Your task to perform on an android device: Open the phone app and click the voicemail tab. Image 0: 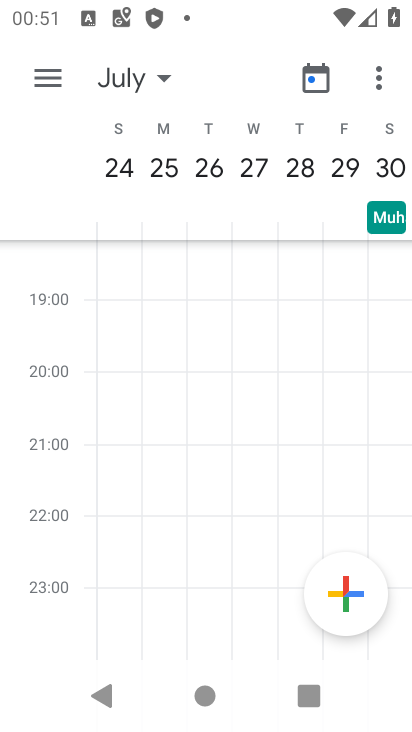
Step 0: press home button
Your task to perform on an android device: Open the phone app and click the voicemail tab. Image 1: 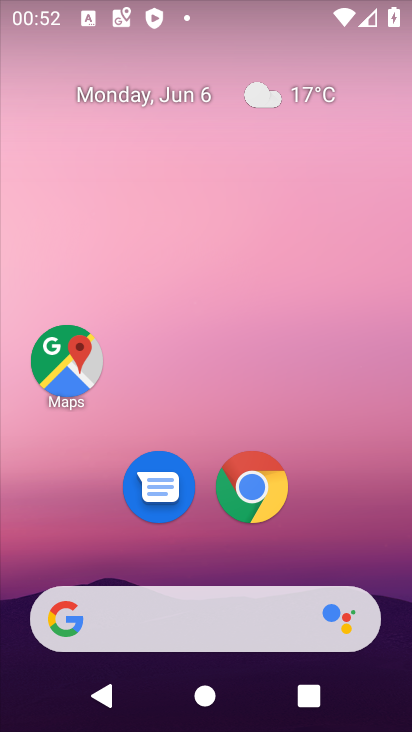
Step 1: drag from (396, 604) to (294, 64)
Your task to perform on an android device: Open the phone app and click the voicemail tab. Image 2: 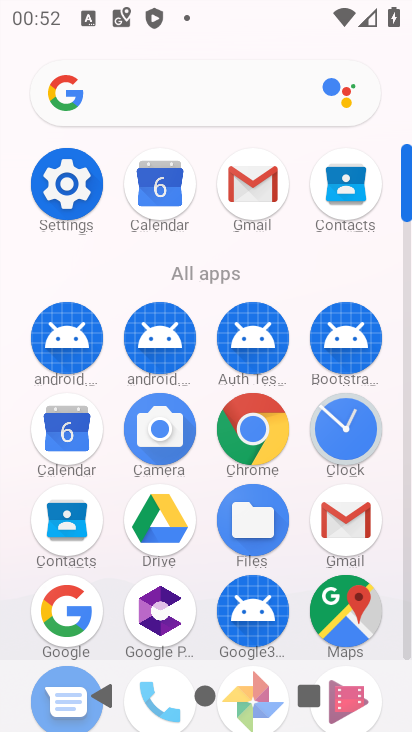
Step 2: click (409, 643)
Your task to perform on an android device: Open the phone app and click the voicemail tab. Image 3: 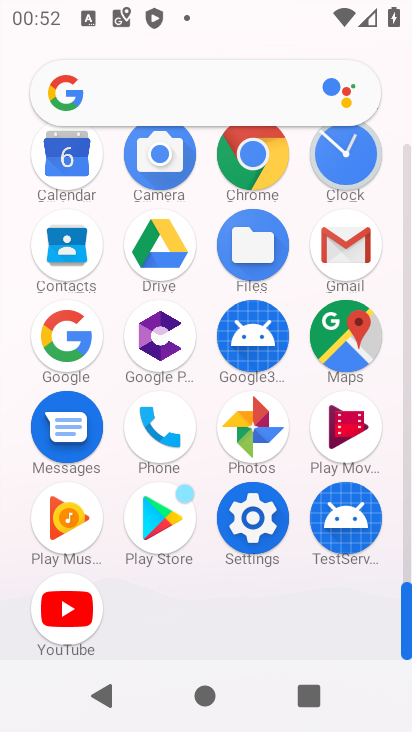
Step 3: click (157, 430)
Your task to perform on an android device: Open the phone app and click the voicemail tab. Image 4: 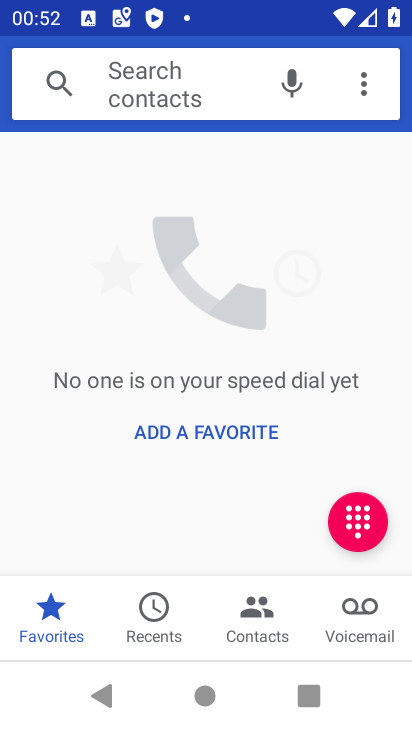
Step 4: click (357, 632)
Your task to perform on an android device: Open the phone app and click the voicemail tab. Image 5: 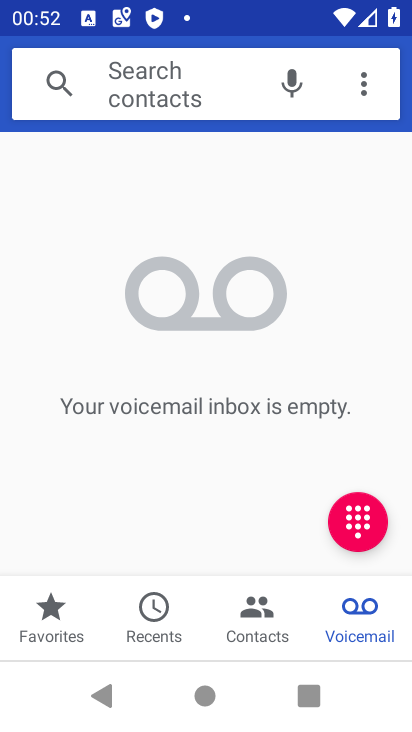
Step 5: task complete